Your task to perform on an android device: create a new album in the google photos Image 0: 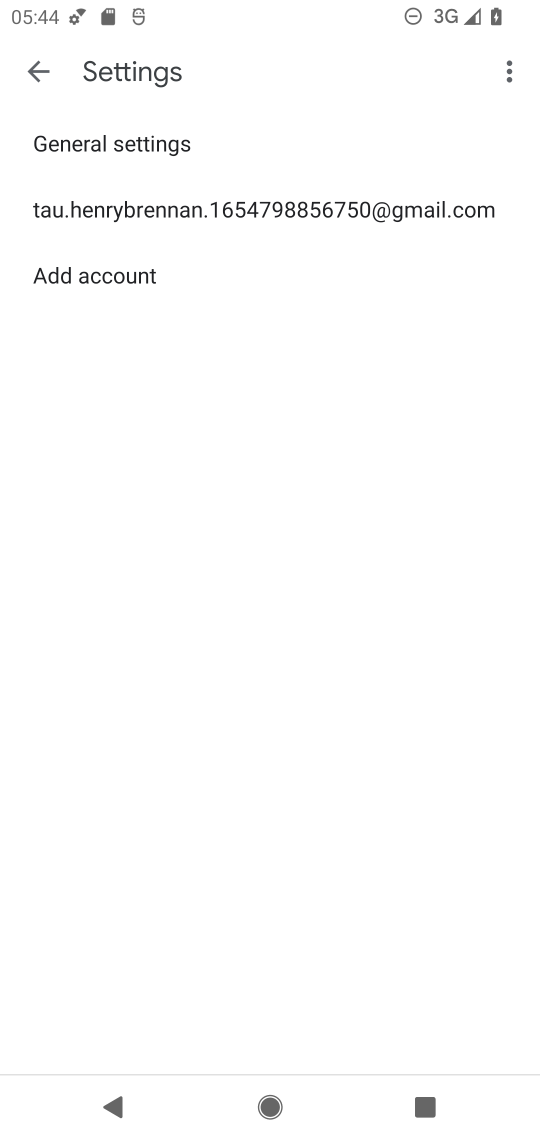
Step 0: press home button
Your task to perform on an android device: create a new album in the google photos Image 1: 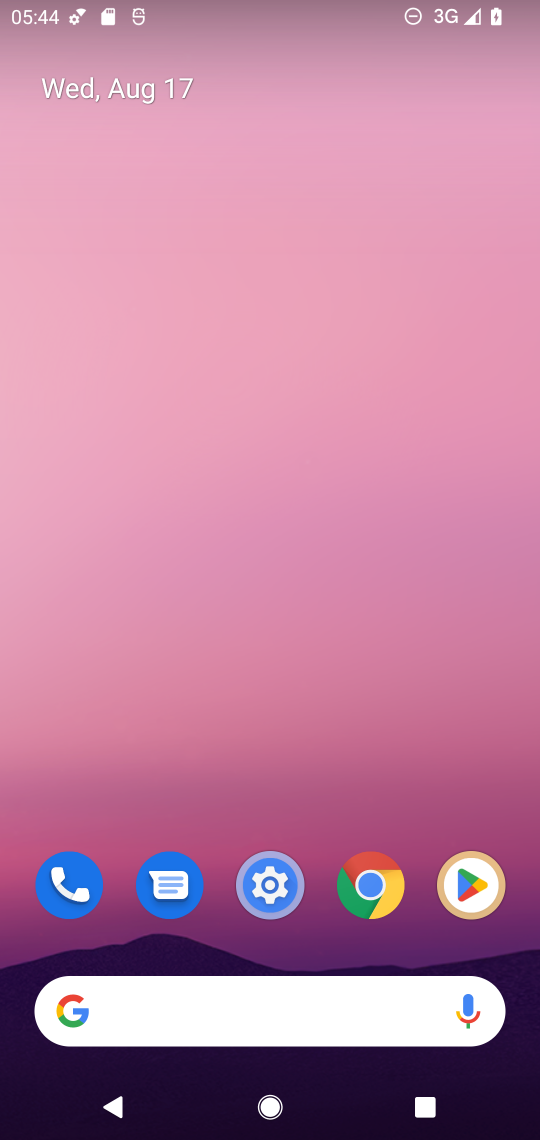
Step 1: drag from (328, 833) to (331, 228)
Your task to perform on an android device: create a new album in the google photos Image 2: 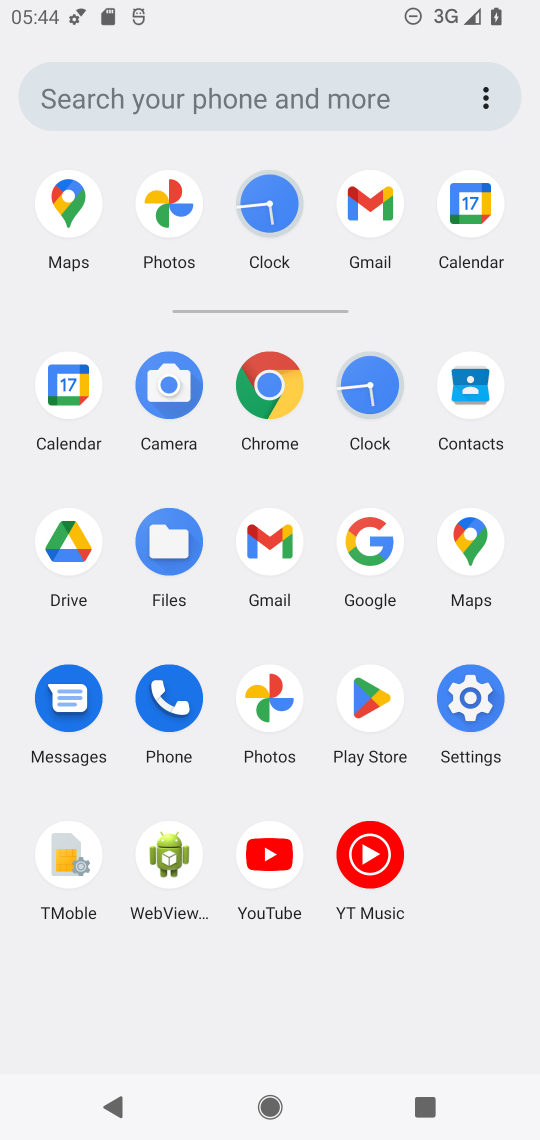
Step 2: click (277, 700)
Your task to perform on an android device: create a new album in the google photos Image 3: 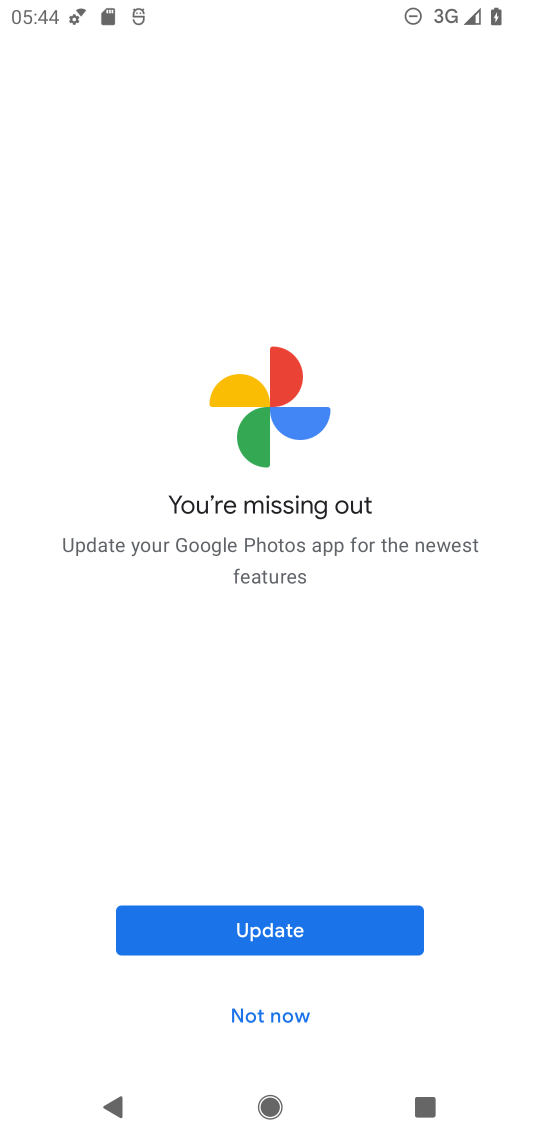
Step 3: click (282, 1025)
Your task to perform on an android device: create a new album in the google photos Image 4: 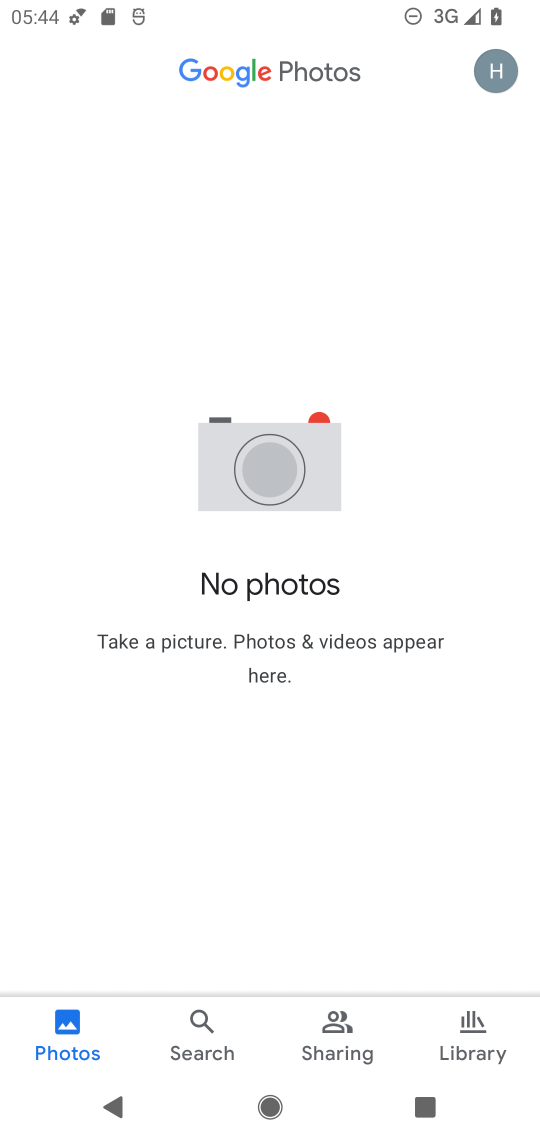
Step 4: click (486, 1029)
Your task to perform on an android device: create a new album in the google photos Image 5: 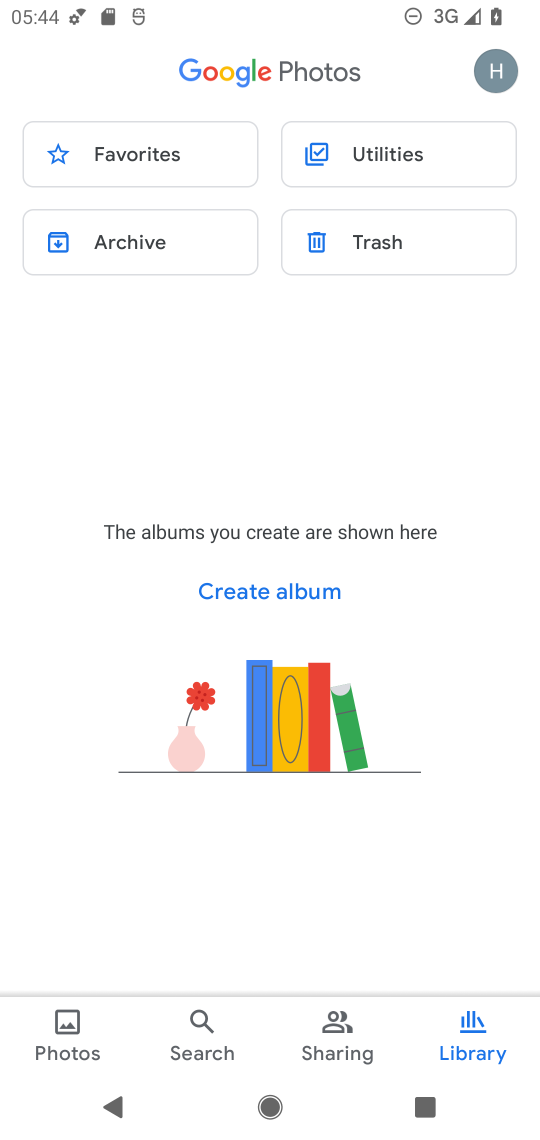
Step 5: click (316, 590)
Your task to perform on an android device: create a new album in the google photos Image 6: 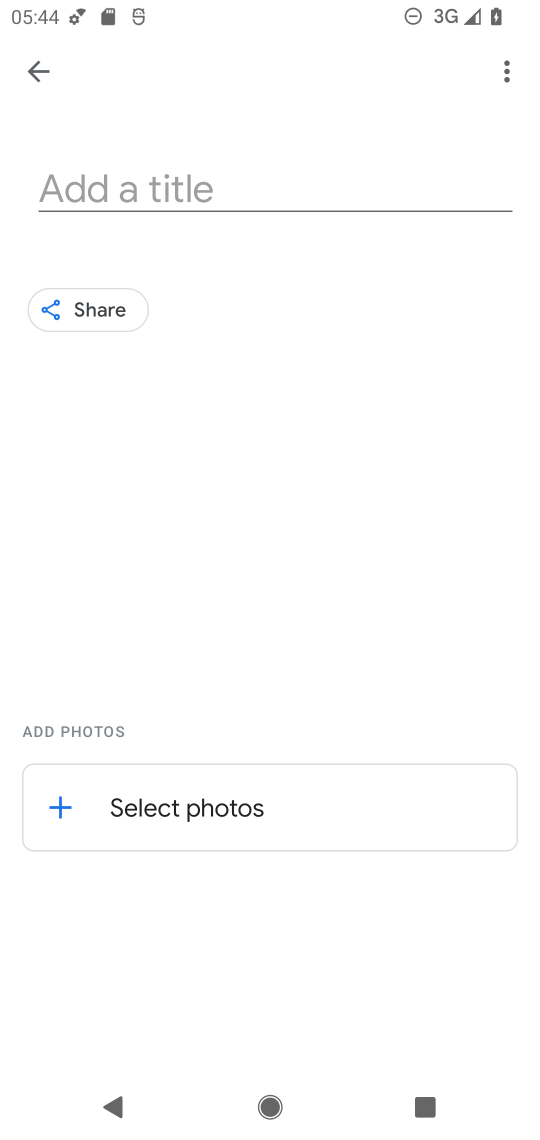
Step 6: click (246, 181)
Your task to perform on an android device: create a new album in the google photos Image 7: 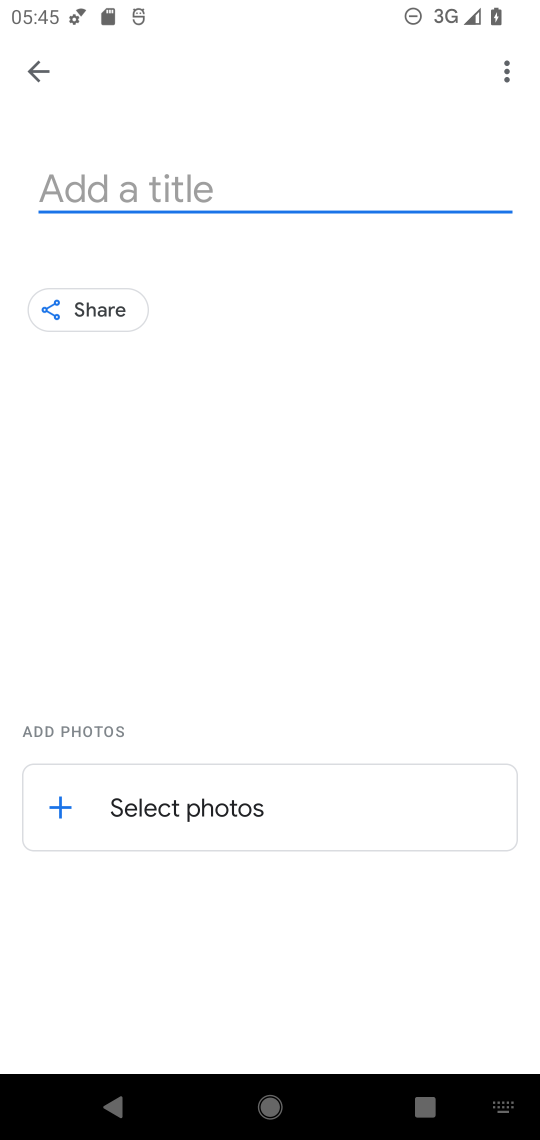
Step 7: type "popl"
Your task to perform on an android device: create a new album in the google photos Image 8: 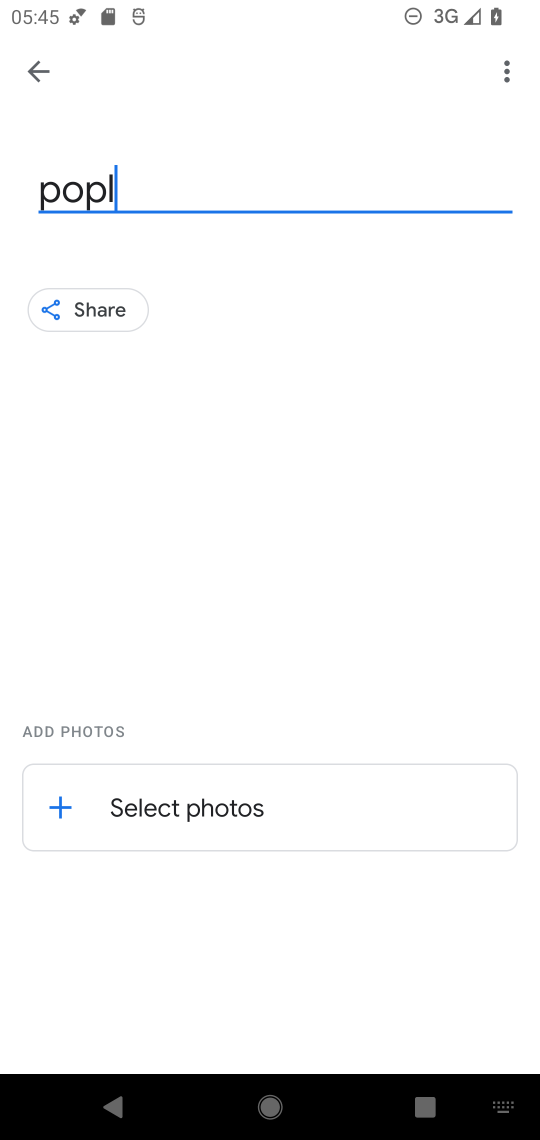
Step 8: task complete